Your task to perform on an android device: Open Maps and search for coffee Image 0: 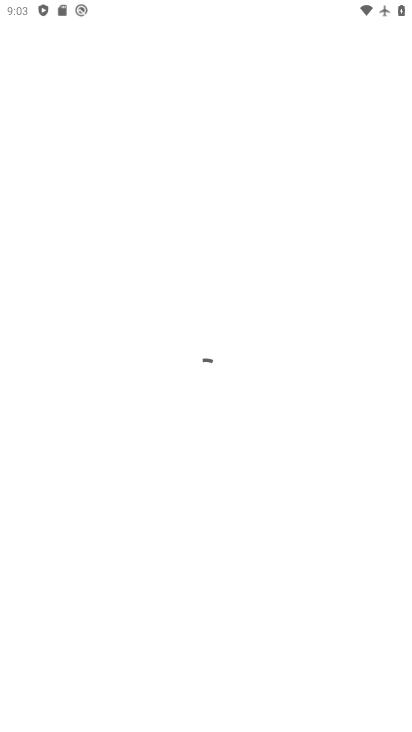
Step 0: press home button
Your task to perform on an android device: Open Maps and search for coffee Image 1: 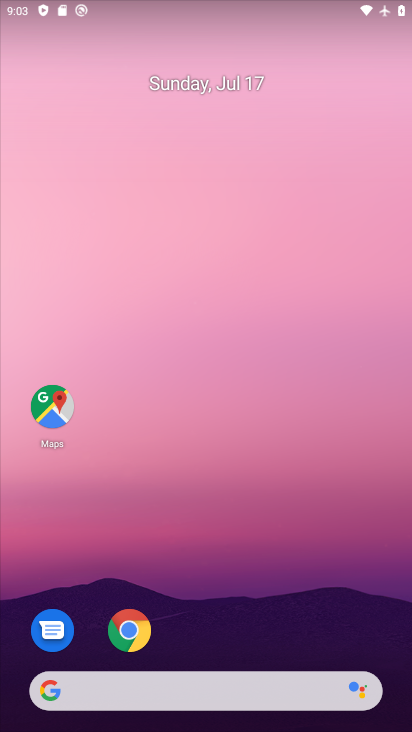
Step 1: drag from (236, 647) to (265, 311)
Your task to perform on an android device: Open Maps and search for coffee Image 2: 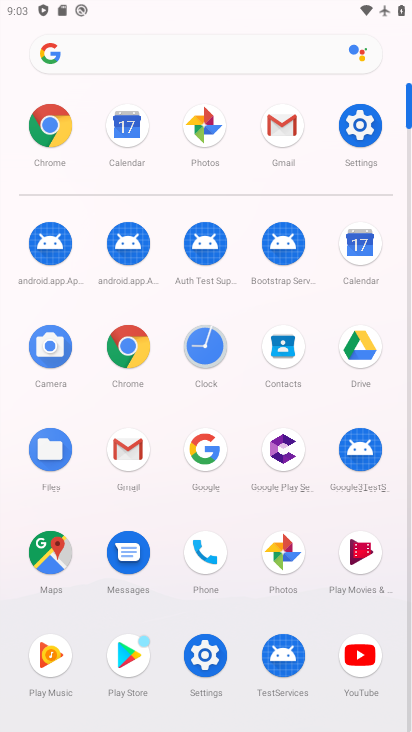
Step 2: click (35, 554)
Your task to perform on an android device: Open Maps and search for coffee Image 3: 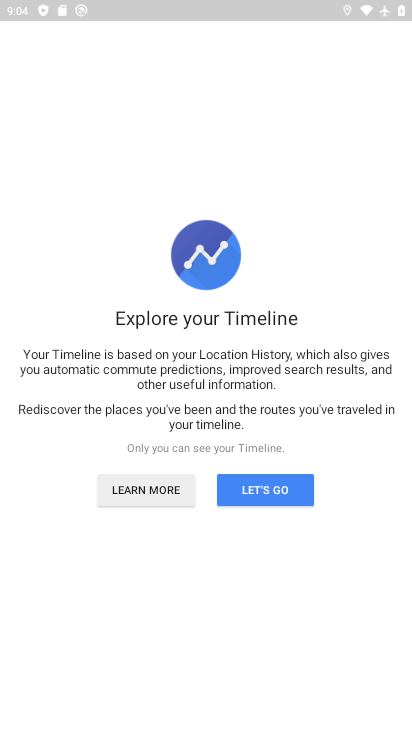
Step 3: click (245, 480)
Your task to perform on an android device: Open Maps and search for coffee Image 4: 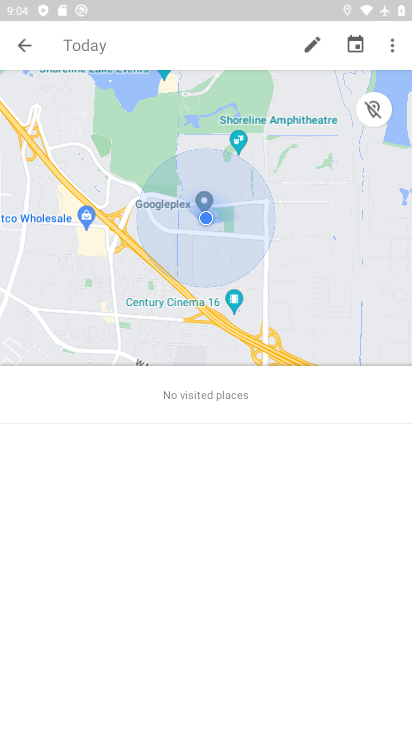
Step 4: click (13, 53)
Your task to perform on an android device: Open Maps and search for coffee Image 5: 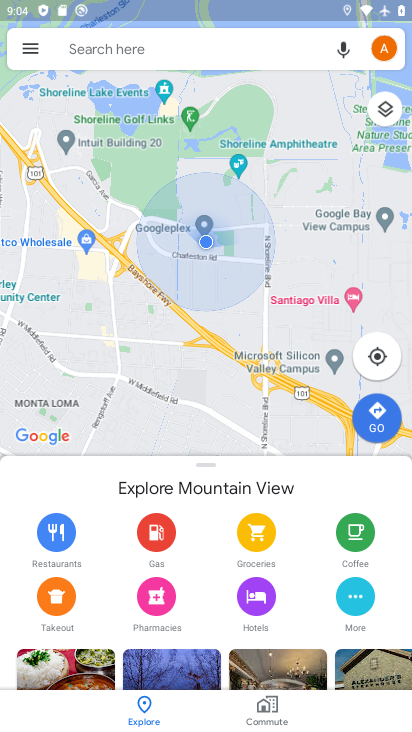
Step 5: click (41, 65)
Your task to perform on an android device: Open Maps and search for coffee Image 6: 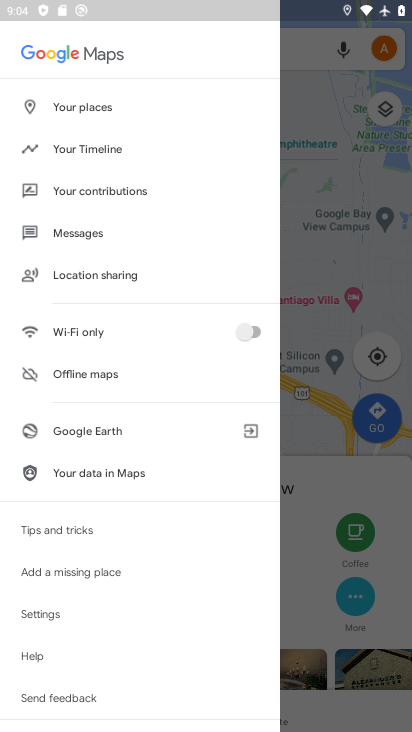
Step 6: click (294, 55)
Your task to perform on an android device: Open Maps and search for coffee Image 7: 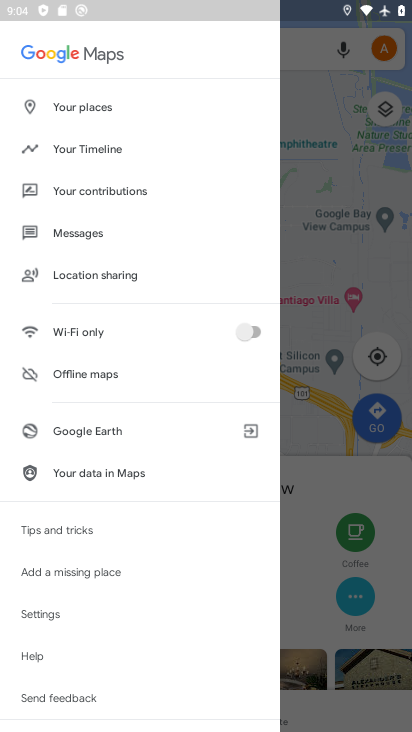
Step 7: click (294, 55)
Your task to perform on an android device: Open Maps and search for coffee Image 8: 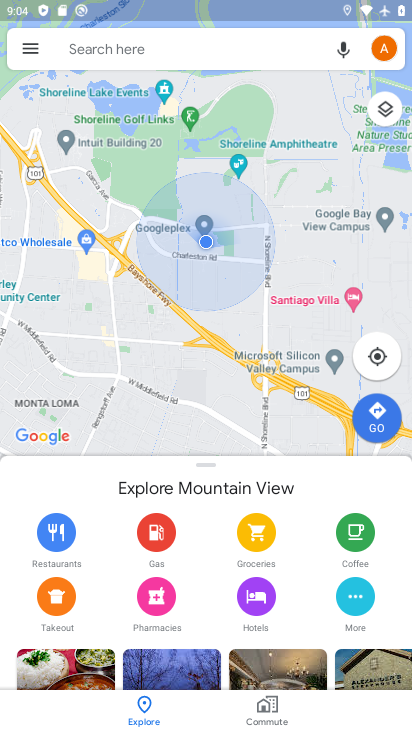
Step 8: click (294, 55)
Your task to perform on an android device: Open Maps and search for coffee Image 9: 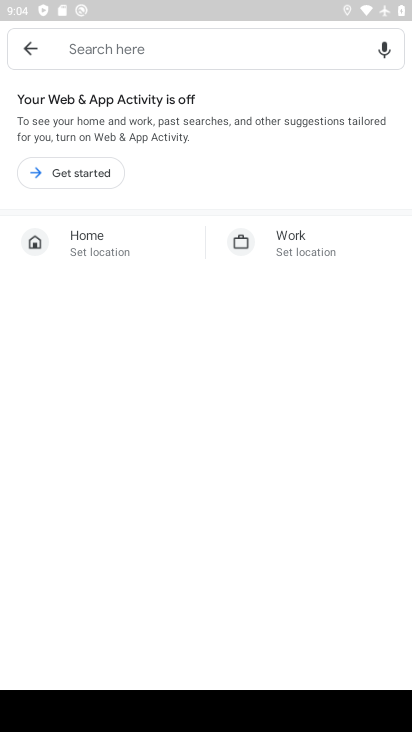
Step 9: type "coffee"
Your task to perform on an android device: Open Maps and search for coffee Image 10: 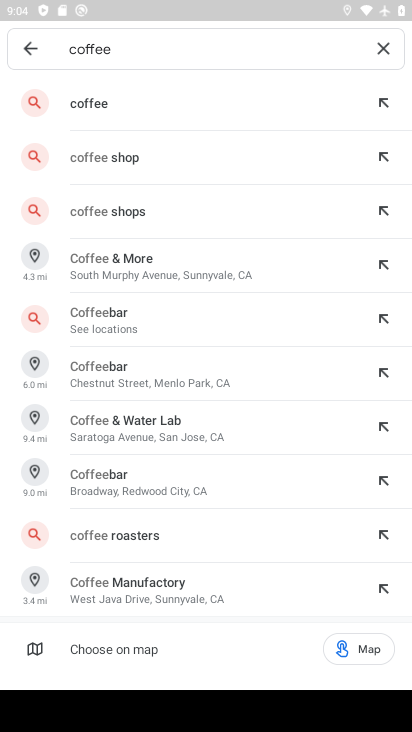
Step 10: click (139, 100)
Your task to perform on an android device: Open Maps and search for coffee Image 11: 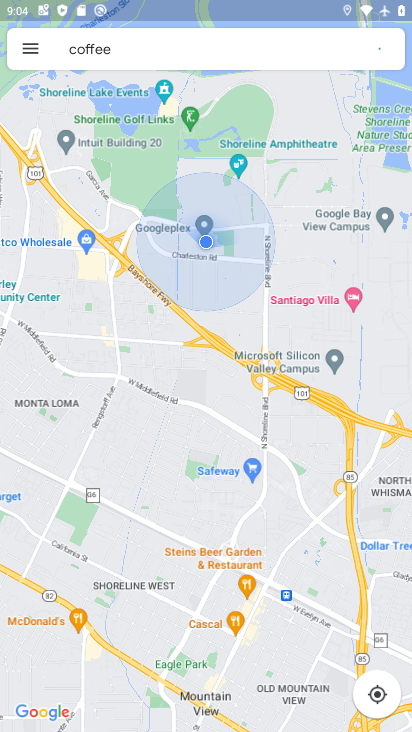
Step 11: task complete